Your task to perform on an android device: star an email in the gmail app Image 0: 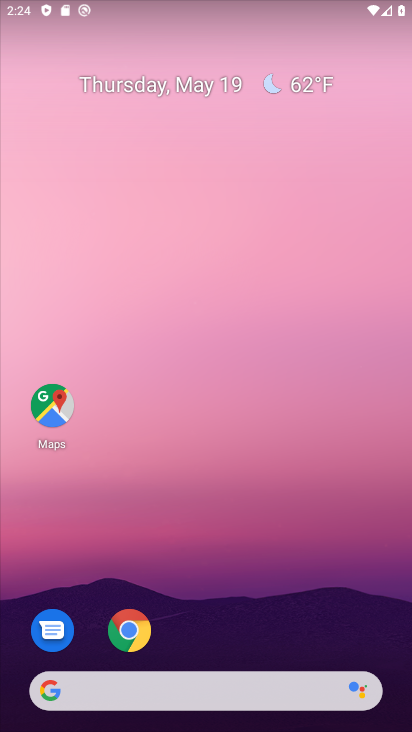
Step 0: drag from (310, 595) to (315, 175)
Your task to perform on an android device: star an email in the gmail app Image 1: 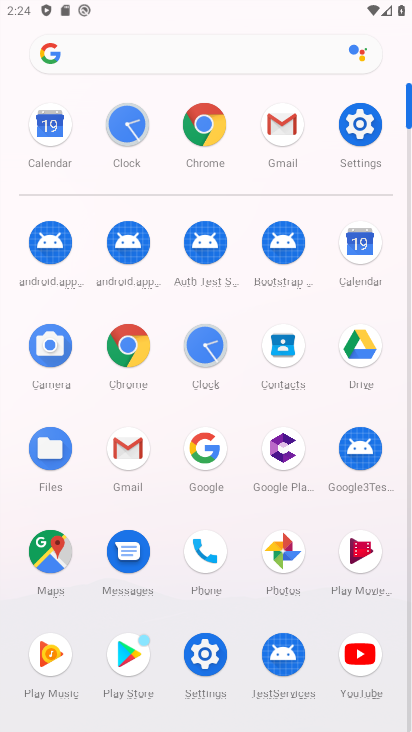
Step 1: click (125, 448)
Your task to perform on an android device: star an email in the gmail app Image 2: 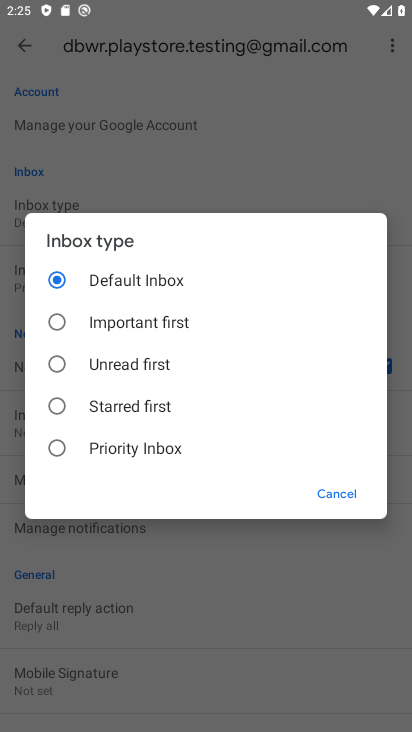
Step 2: click (313, 496)
Your task to perform on an android device: star an email in the gmail app Image 3: 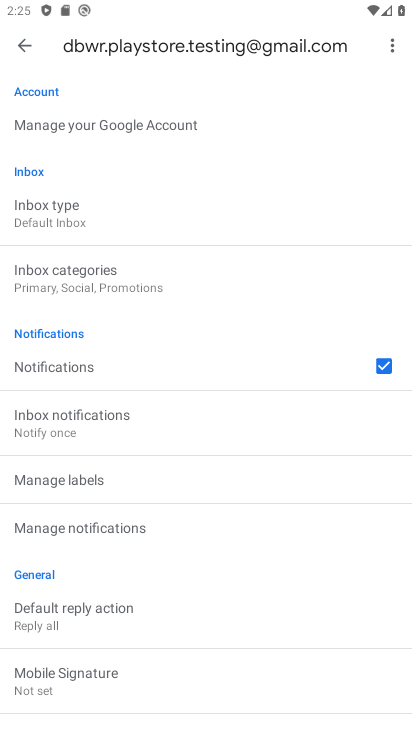
Step 3: click (19, 56)
Your task to perform on an android device: star an email in the gmail app Image 4: 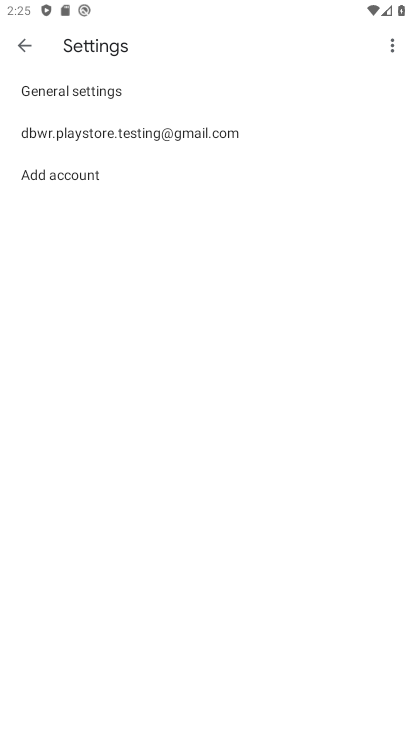
Step 4: click (19, 56)
Your task to perform on an android device: star an email in the gmail app Image 5: 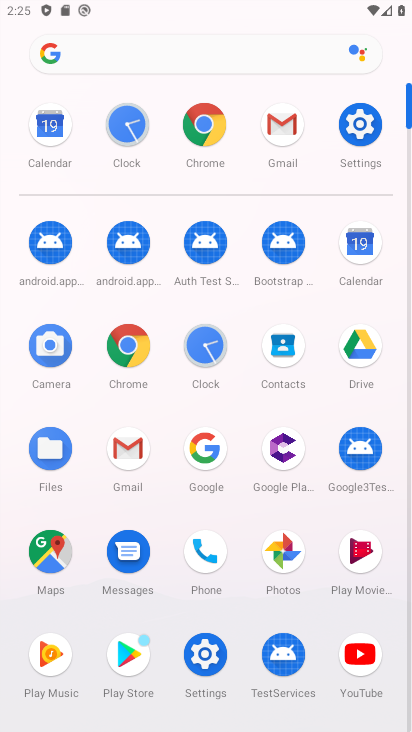
Step 5: click (115, 449)
Your task to perform on an android device: star an email in the gmail app Image 6: 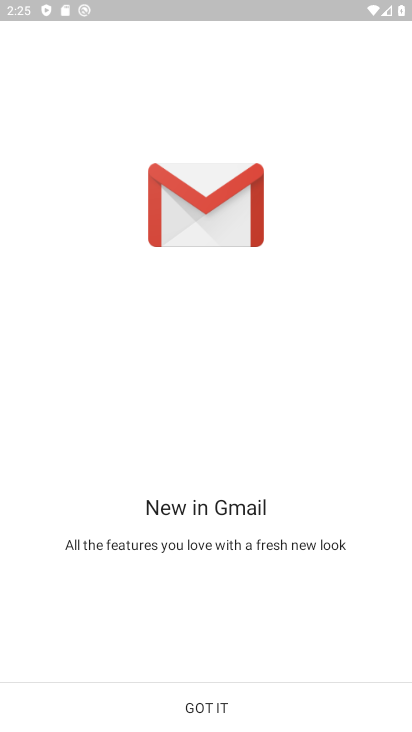
Step 6: click (196, 710)
Your task to perform on an android device: star an email in the gmail app Image 7: 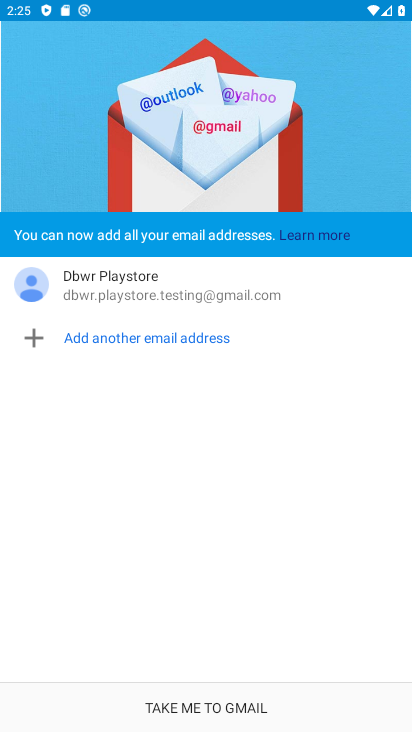
Step 7: click (196, 711)
Your task to perform on an android device: star an email in the gmail app Image 8: 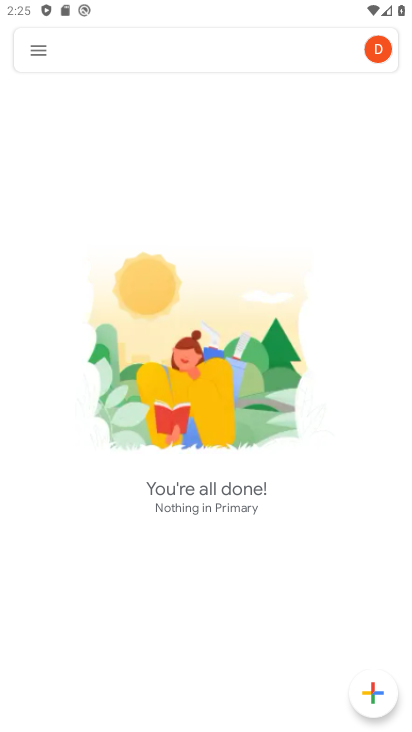
Step 8: click (38, 62)
Your task to perform on an android device: star an email in the gmail app Image 9: 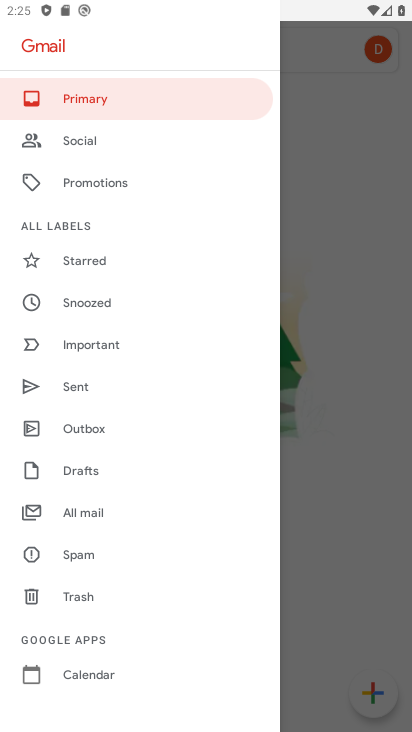
Step 9: click (77, 262)
Your task to perform on an android device: star an email in the gmail app Image 10: 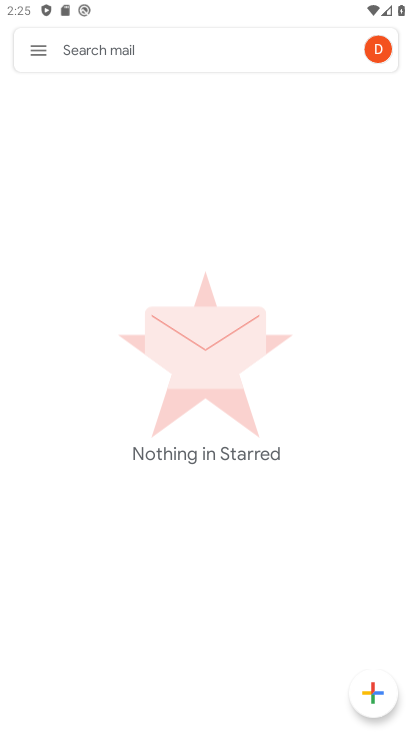
Step 10: task complete